Your task to perform on an android device: Open Reddit.com Image 0: 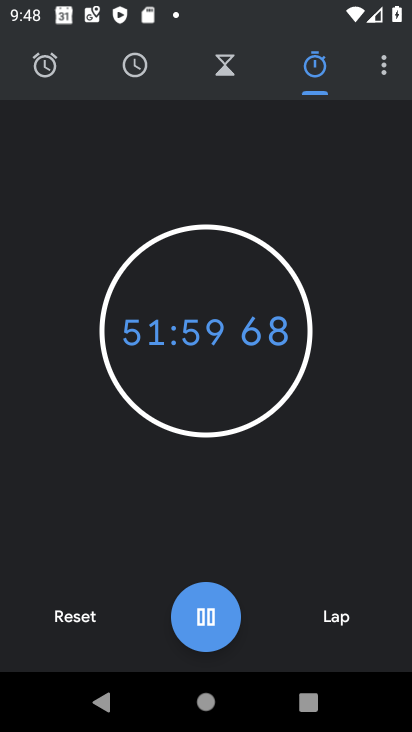
Step 0: press home button
Your task to perform on an android device: Open Reddit.com Image 1: 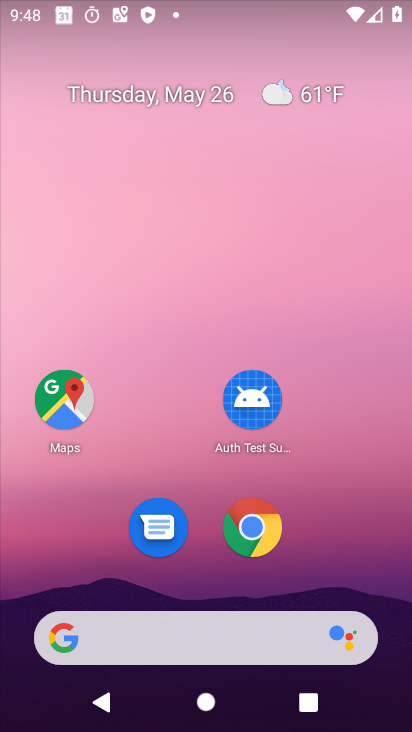
Step 1: click (259, 528)
Your task to perform on an android device: Open Reddit.com Image 2: 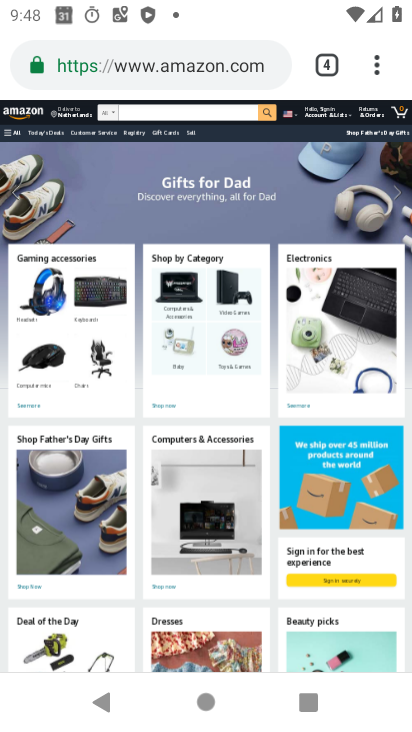
Step 2: click (211, 54)
Your task to perform on an android device: Open Reddit.com Image 3: 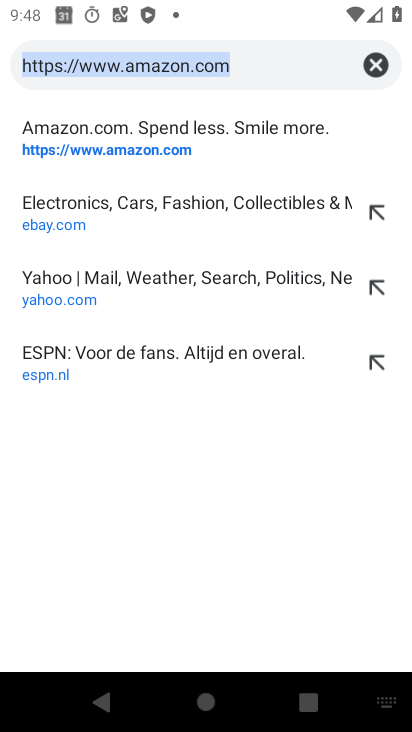
Step 3: type "reddit"
Your task to perform on an android device: Open Reddit.com Image 4: 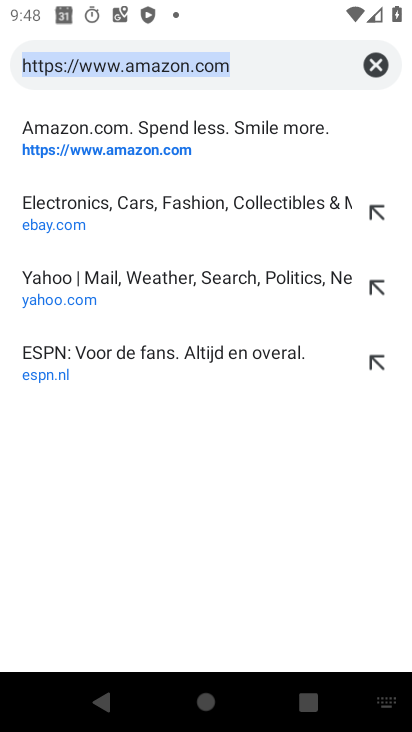
Step 4: click (377, 56)
Your task to perform on an android device: Open Reddit.com Image 5: 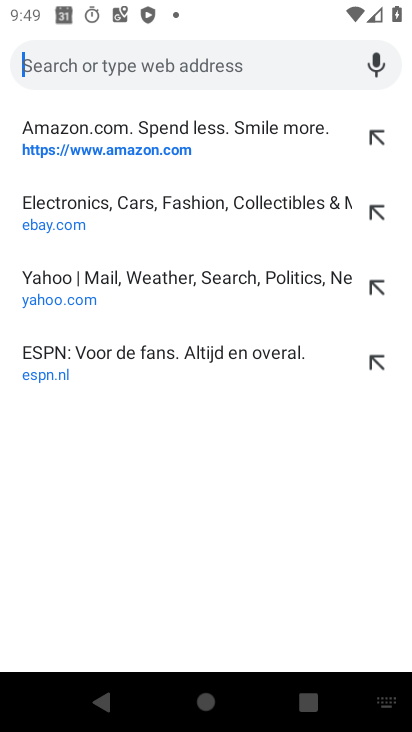
Step 5: type "reddit"
Your task to perform on an android device: Open Reddit.com Image 6: 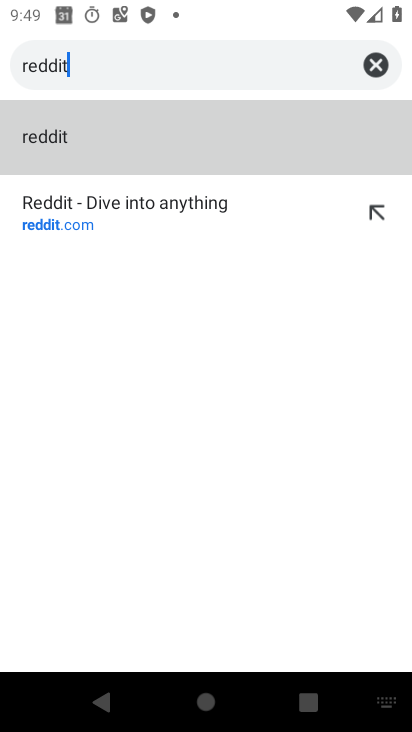
Step 6: click (93, 210)
Your task to perform on an android device: Open Reddit.com Image 7: 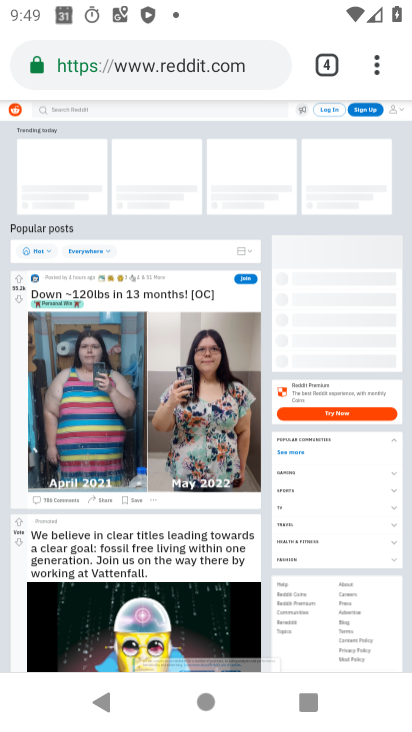
Step 7: task complete